Your task to perform on an android device: turn on improve location accuracy Image 0: 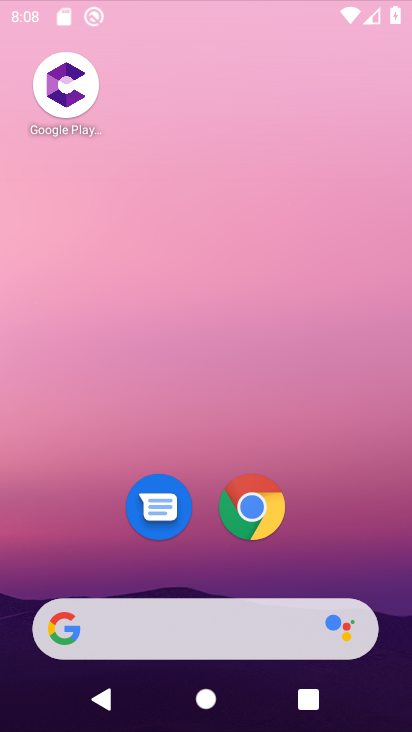
Step 0: click (404, 82)
Your task to perform on an android device: turn on improve location accuracy Image 1: 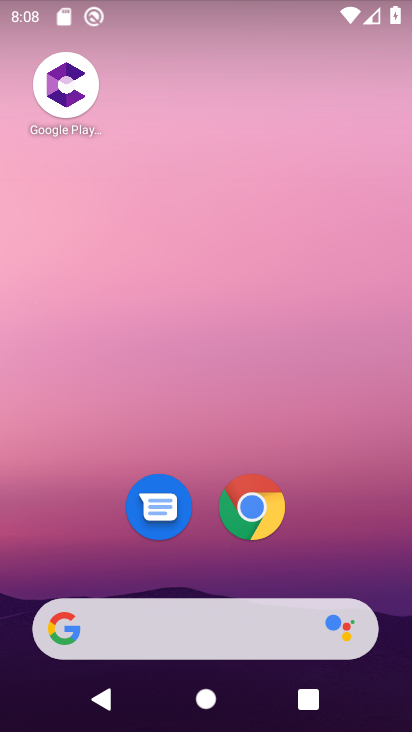
Step 1: drag from (217, 558) to (267, 320)
Your task to perform on an android device: turn on improve location accuracy Image 2: 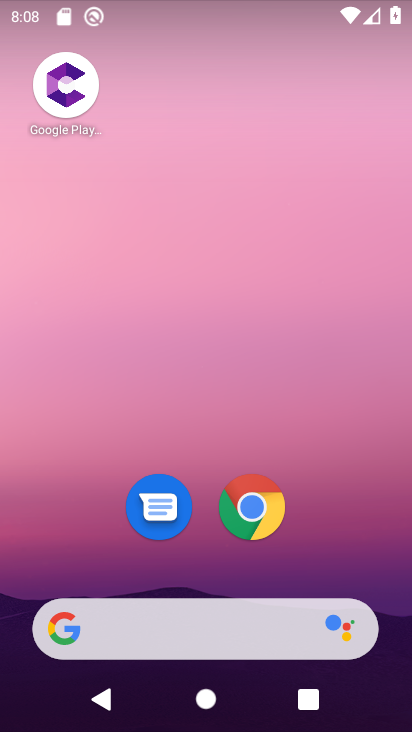
Step 2: drag from (231, 560) to (286, 315)
Your task to perform on an android device: turn on improve location accuracy Image 3: 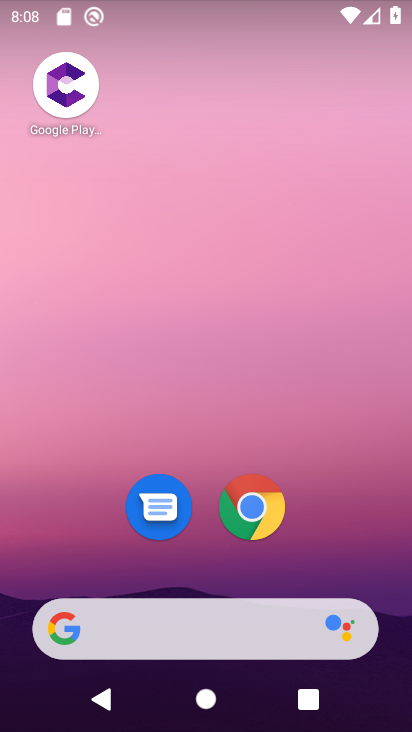
Step 3: drag from (220, 583) to (232, 396)
Your task to perform on an android device: turn on improve location accuracy Image 4: 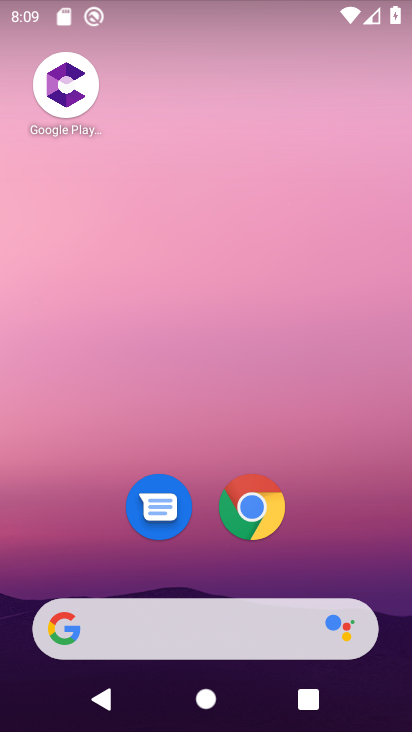
Step 4: drag from (190, 572) to (14, 656)
Your task to perform on an android device: turn on improve location accuracy Image 5: 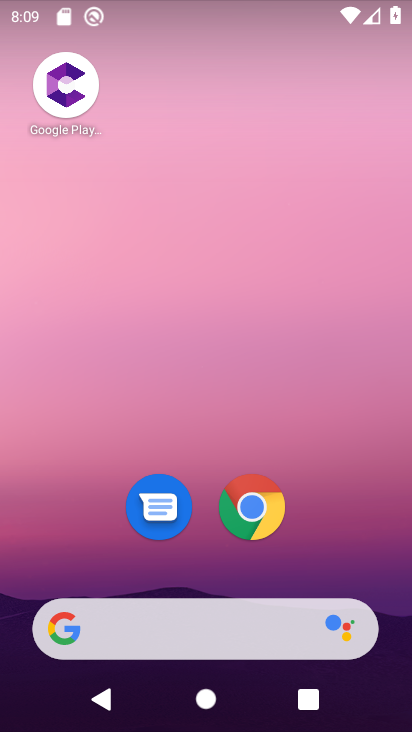
Step 5: drag from (189, 602) to (274, 2)
Your task to perform on an android device: turn on improve location accuracy Image 6: 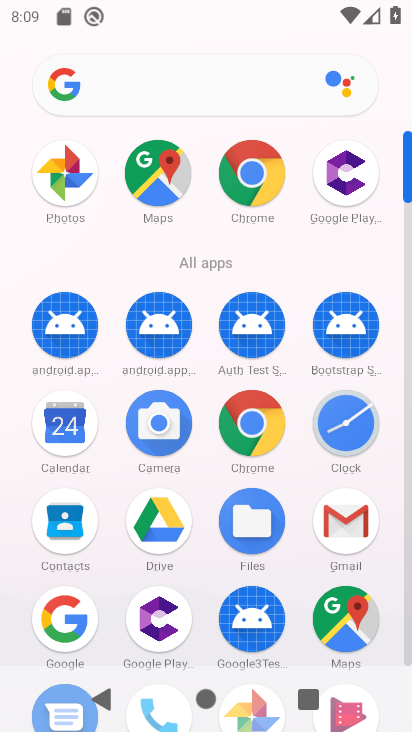
Step 6: drag from (198, 668) to (243, 175)
Your task to perform on an android device: turn on improve location accuracy Image 7: 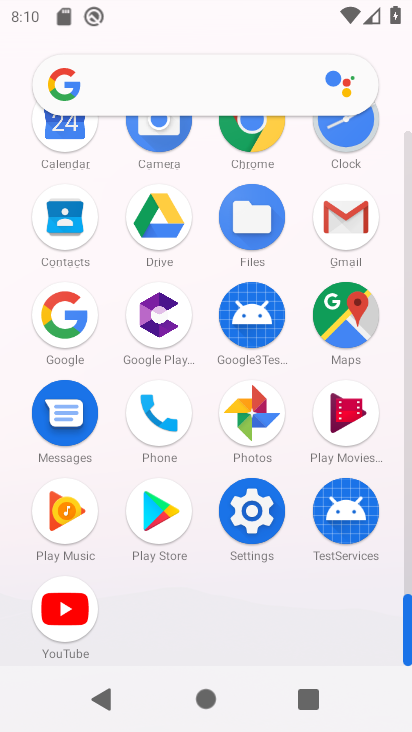
Step 7: click (258, 510)
Your task to perform on an android device: turn on improve location accuracy Image 8: 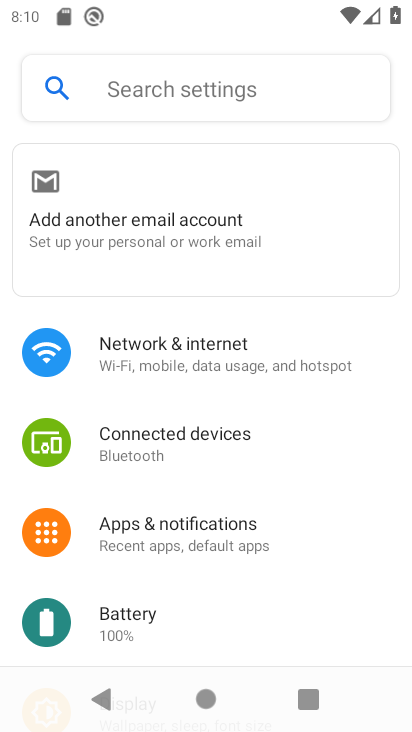
Step 8: drag from (215, 579) to (277, 243)
Your task to perform on an android device: turn on improve location accuracy Image 9: 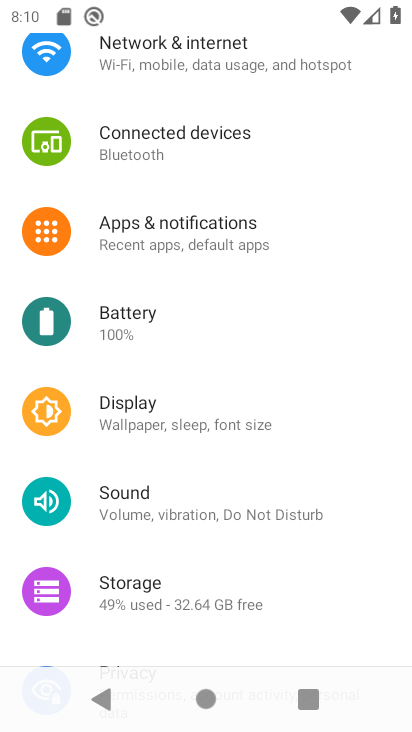
Step 9: drag from (170, 546) to (283, 101)
Your task to perform on an android device: turn on improve location accuracy Image 10: 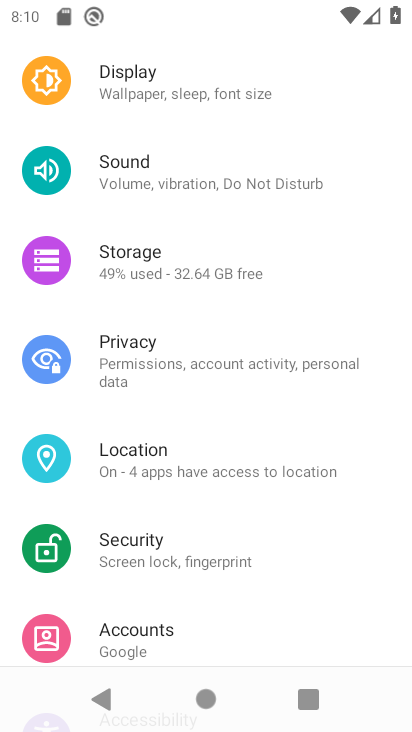
Step 10: drag from (184, 551) to (259, 220)
Your task to perform on an android device: turn on improve location accuracy Image 11: 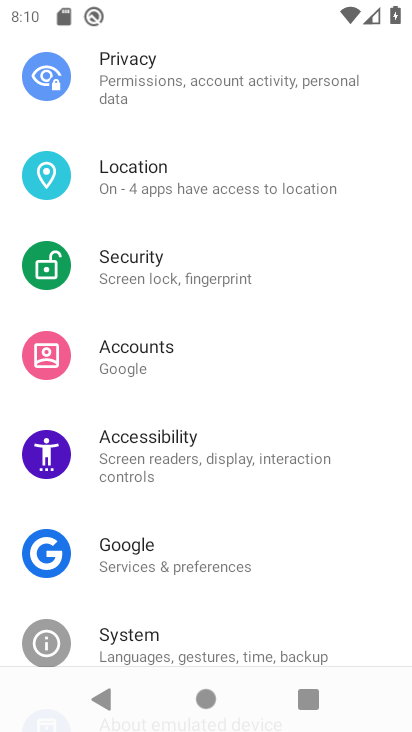
Step 11: drag from (183, 623) to (269, 194)
Your task to perform on an android device: turn on improve location accuracy Image 12: 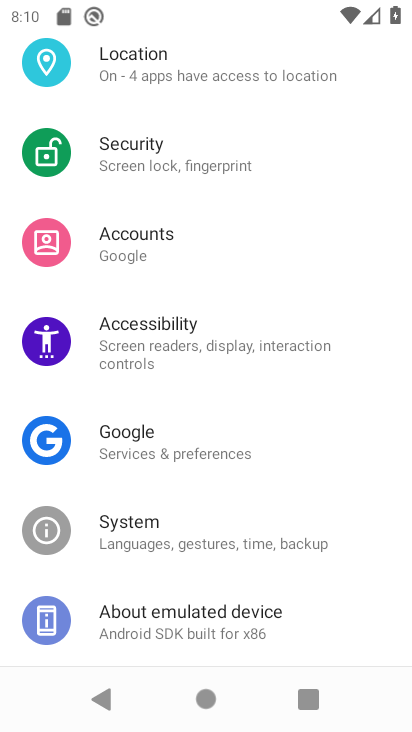
Step 12: drag from (211, 545) to (280, 311)
Your task to perform on an android device: turn on improve location accuracy Image 13: 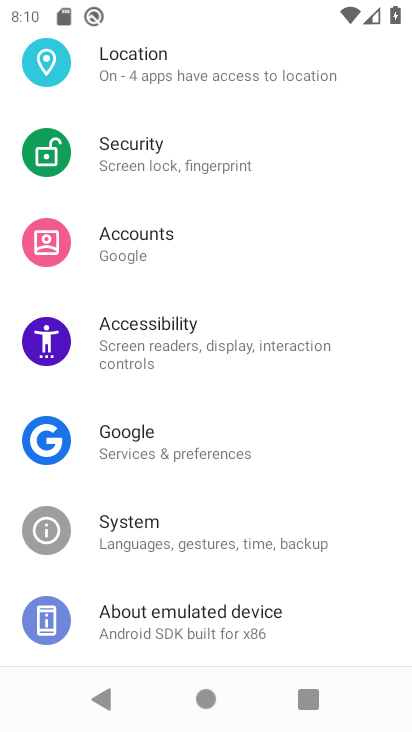
Step 13: click (217, 84)
Your task to perform on an android device: turn on improve location accuracy Image 14: 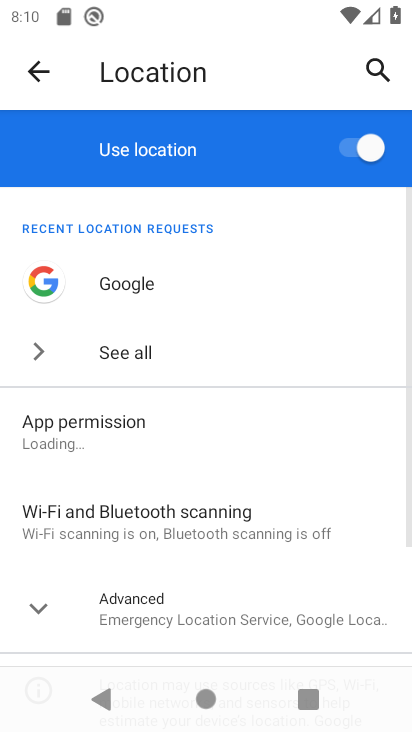
Step 14: drag from (240, 575) to (362, 22)
Your task to perform on an android device: turn on improve location accuracy Image 15: 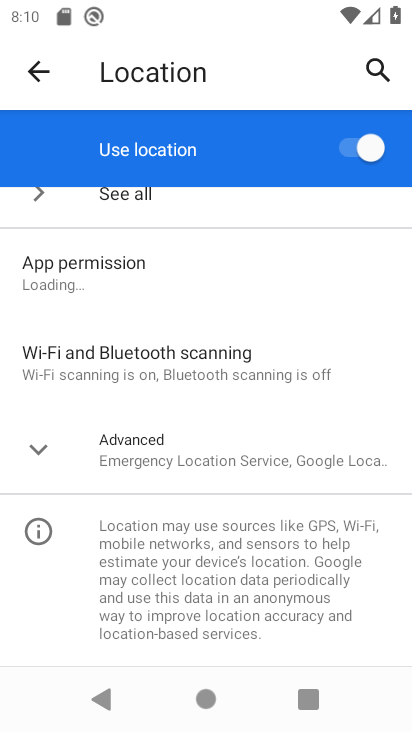
Step 15: click (203, 450)
Your task to perform on an android device: turn on improve location accuracy Image 16: 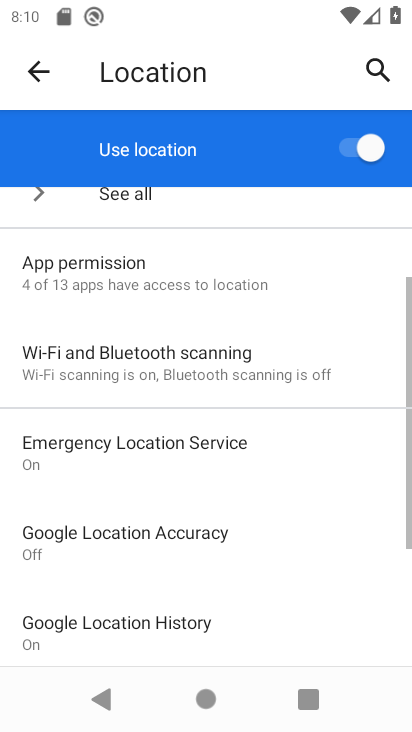
Step 16: drag from (303, 531) to (371, 135)
Your task to perform on an android device: turn on improve location accuracy Image 17: 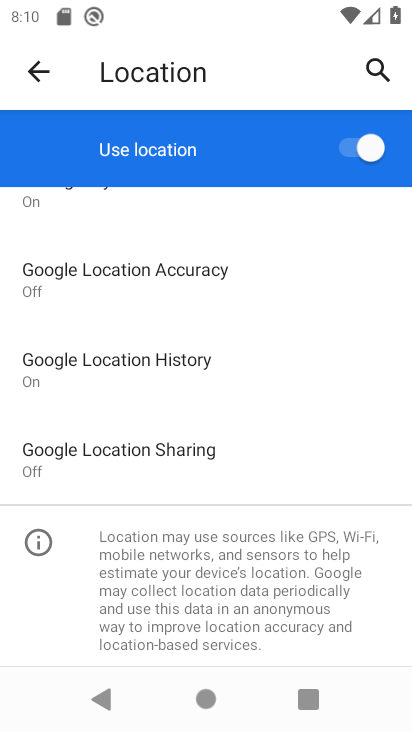
Step 17: click (110, 291)
Your task to perform on an android device: turn on improve location accuracy Image 18: 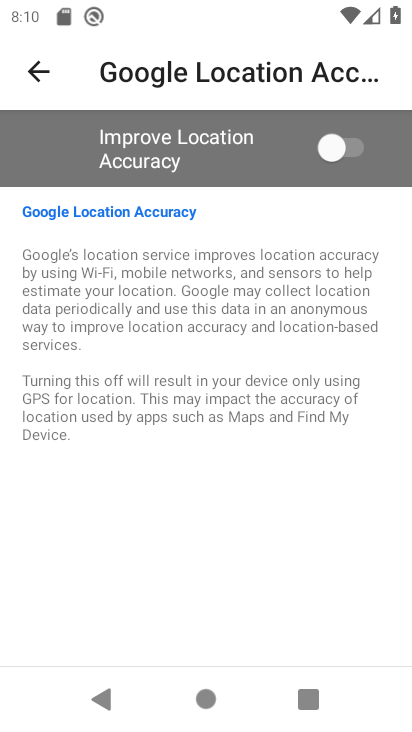
Step 18: click (306, 143)
Your task to perform on an android device: turn on improve location accuracy Image 19: 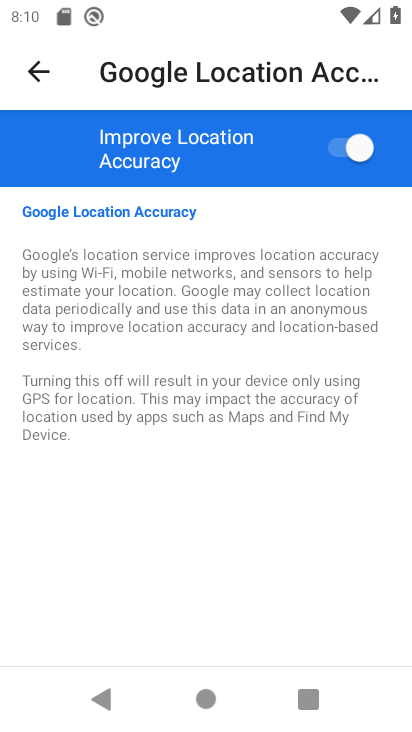
Step 19: task complete